Your task to perform on an android device: Go to display settings Image 0: 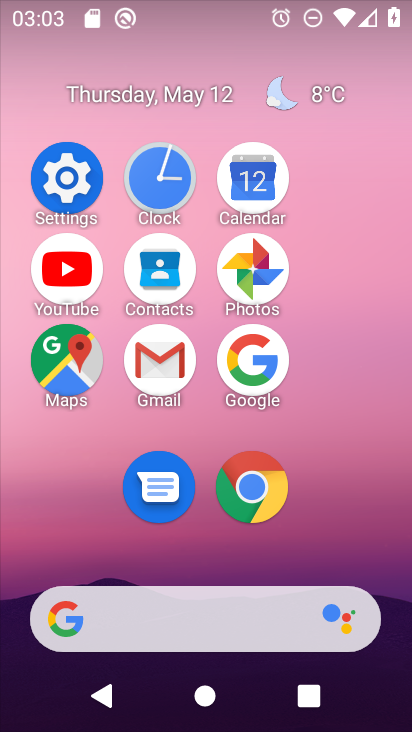
Step 0: click (46, 175)
Your task to perform on an android device: Go to display settings Image 1: 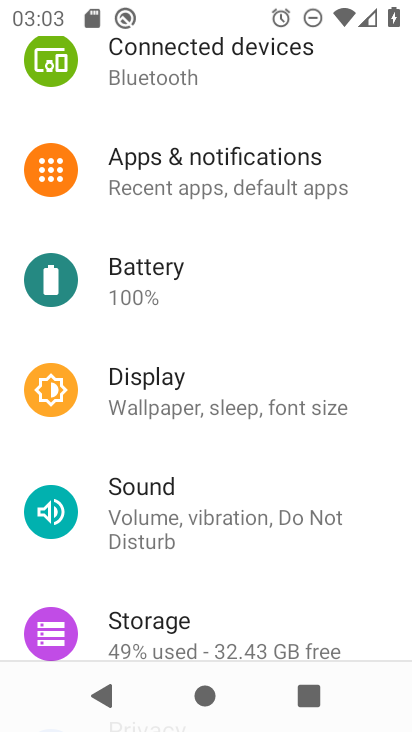
Step 1: click (237, 372)
Your task to perform on an android device: Go to display settings Image 2: 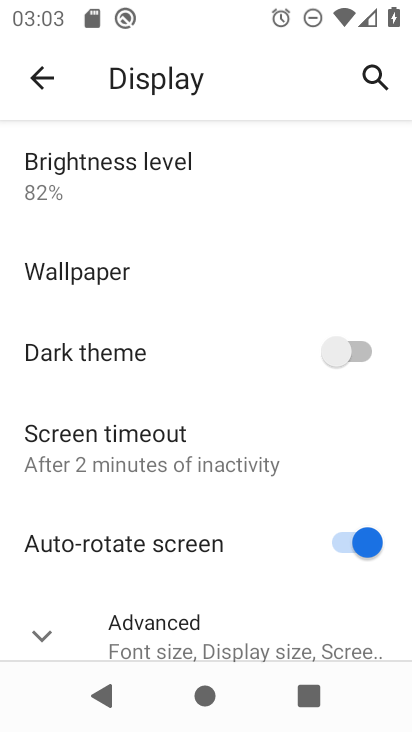
Step 2: task complete